Your task to perform on an android device: Open maps Image 0: 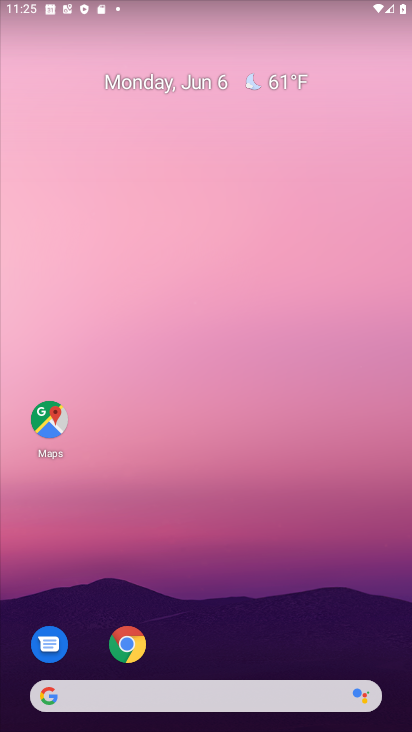
Step 0: drag from (256, 645) to (207, 160)
Your task to perform on an android device: Open maps Image 1: 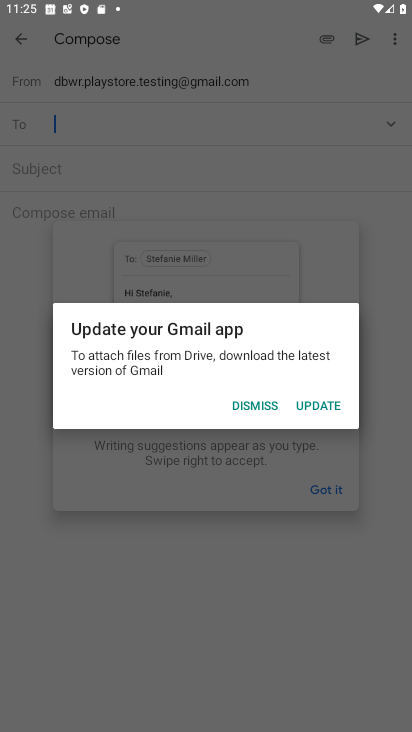
Step 1: click (254, 406)
Your task to perform on an android device: Open maps Image 2: 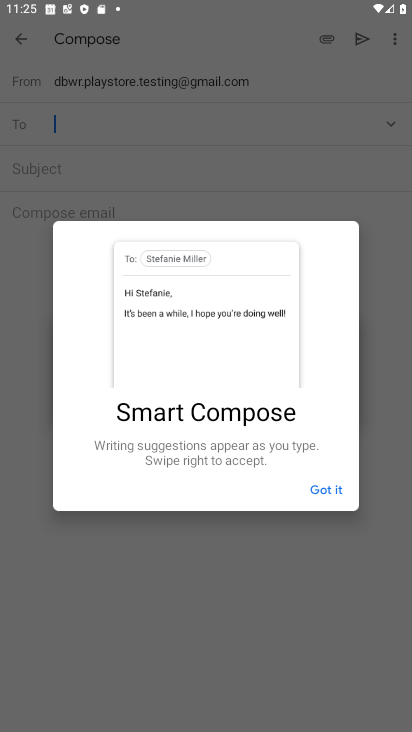
Step 2: click (330, 483)
Your task to perform on an android device: Open maps Image 3: 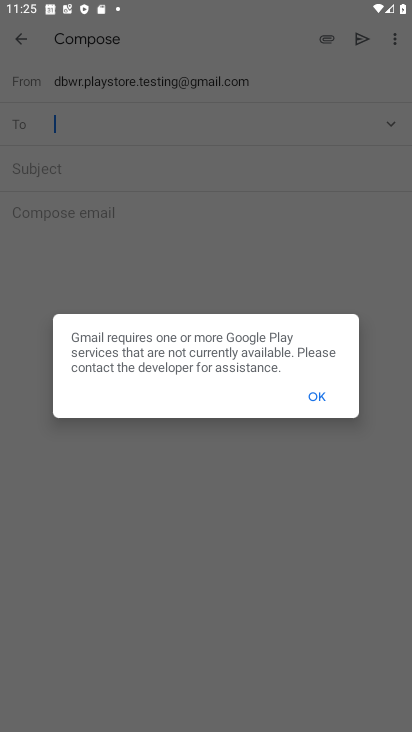
Step 3: click (306, 405)
Your task to perform on an android device: Open maps Image 4: 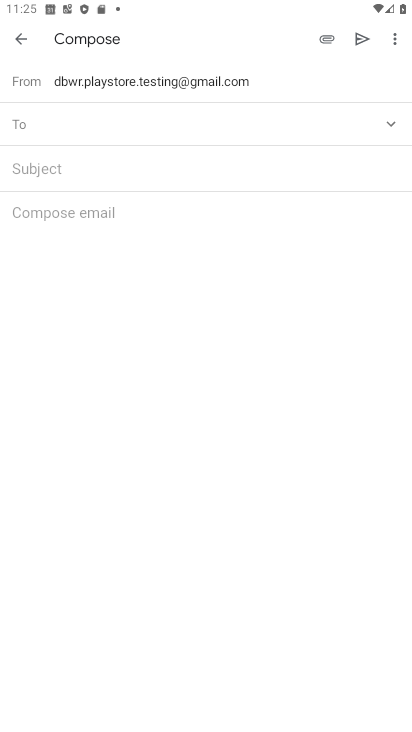
Step 4: task complete